Your task to perform on an android device: create a new album in the google photos Image 0: 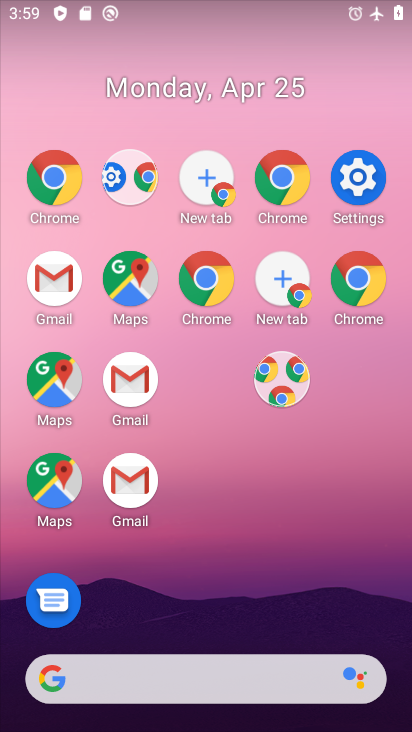
Step 0: click (197, 182)
Your task to perform on an android device: create a new album in the google photos Image 1: 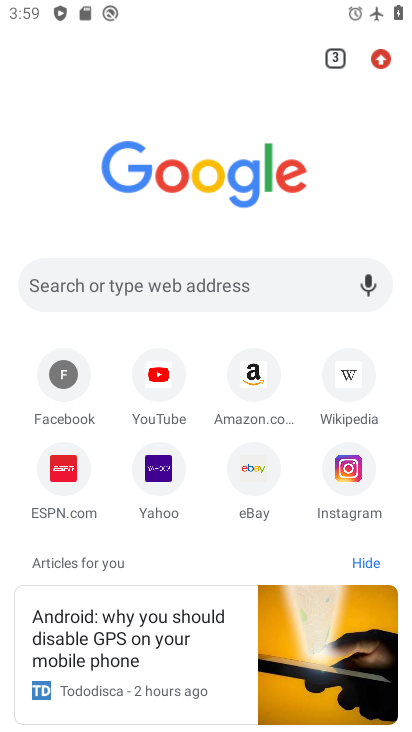
Step 1: press home button
Your task to perform on an android device: create a new album in the google photos Image 2: 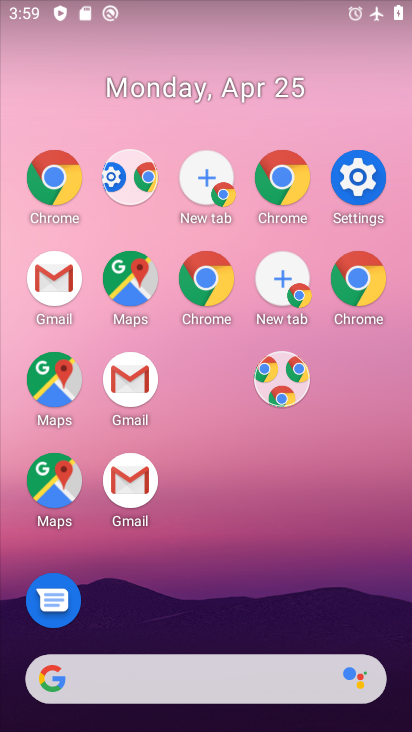
Step 2: drag from (248, 556) to (216, 171)
Your task to perform on an android device: create a new album in the google photos Image 3: 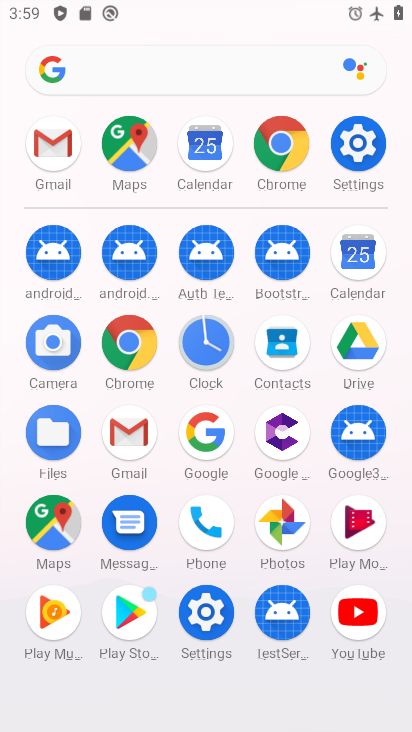
Step 3: click (275, 529)
Your task to perform on an android device: create a new album in the google photos Image 4: 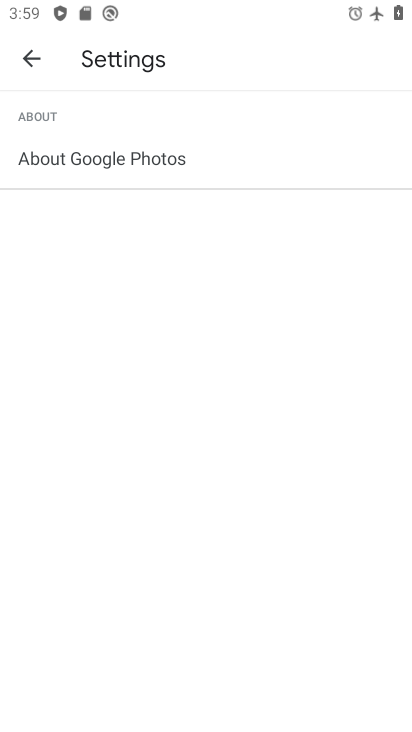
Step 4: click (27, 51)
Your task to perform on an android device: create a new album in the google photos Image 5: 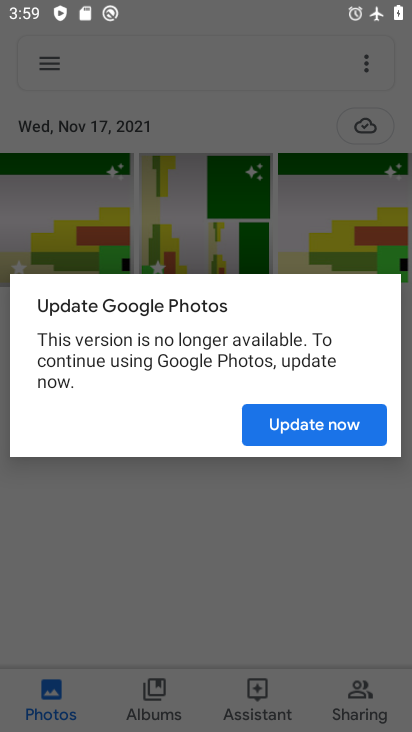
Step 5: press home button
Your task to perform on an android device: create a new album in the google photos Image 6: 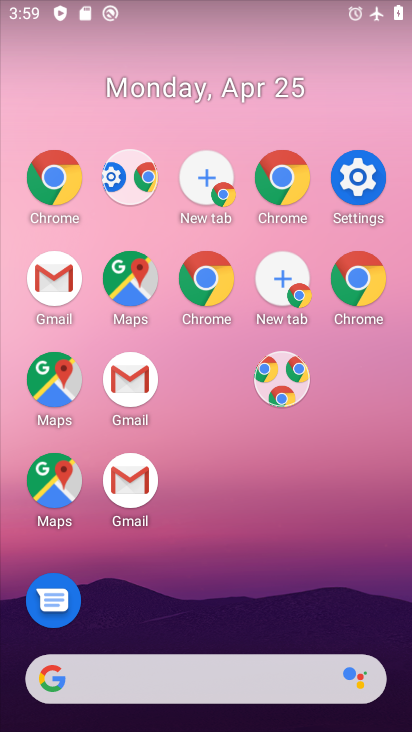
Step 6: drag from (285, 674) to (214, 119)
Your task to perform on an android device: create a new album in the google photos Image 7: 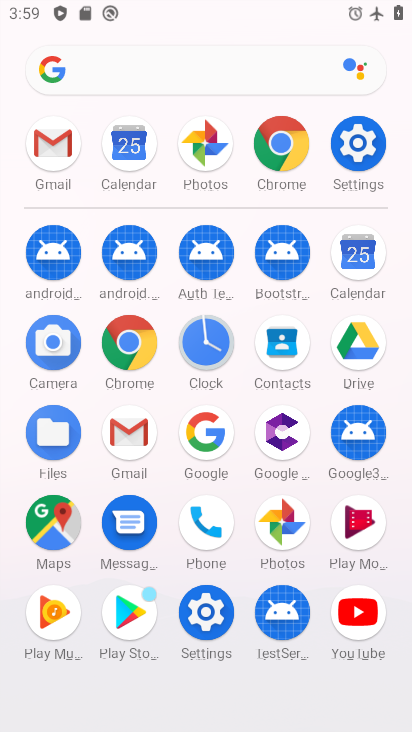
Step 7: click (283, 523)
Your task to perform on an android device: create a new album in the google photos Image 8: 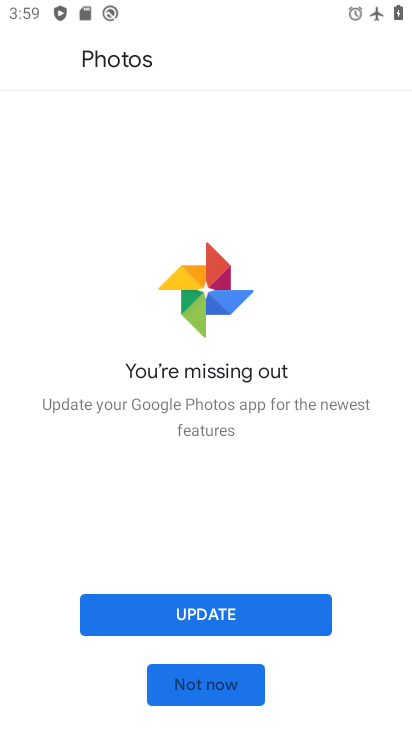
Step 8: click (202, 675)
Your task to perform on an android device: create a new album in the google photos Image 9: 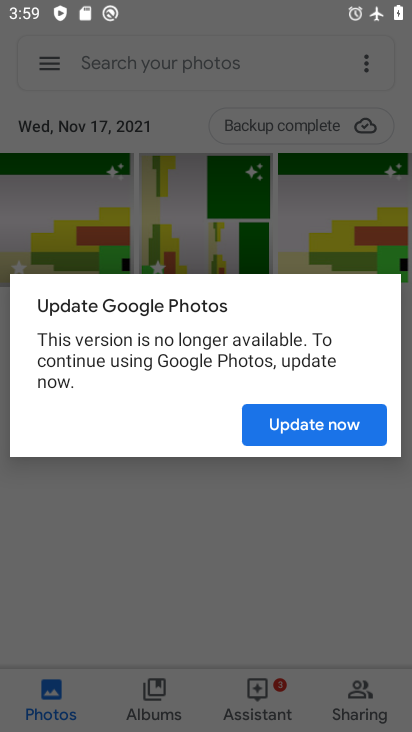
Step 9: click (319, 419)
Your task to perform on an android device: create a new album in the google photos Image 10: 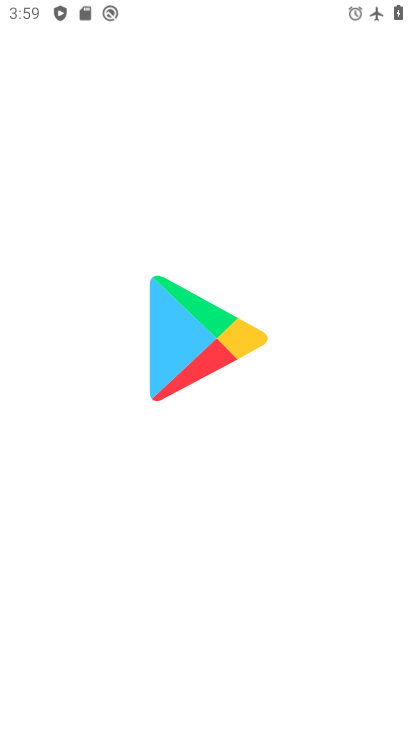
Step 10: click (144, 690)
Your task to perform on an android device: create a new album in the google photos Image 11: 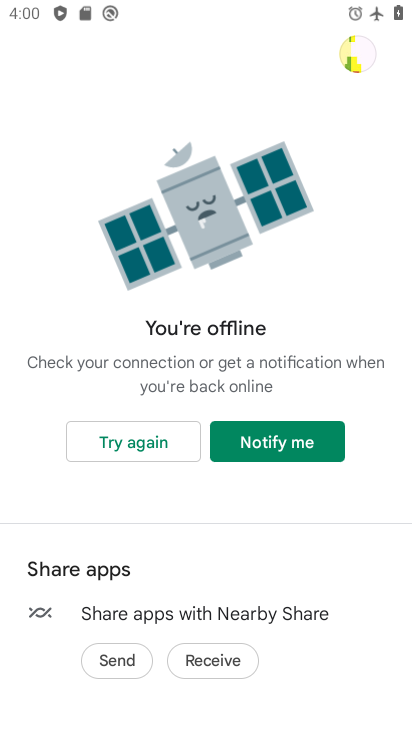
Step 11: press home button
Your task to perform on an android device: create a new album in the google photos Image 12: 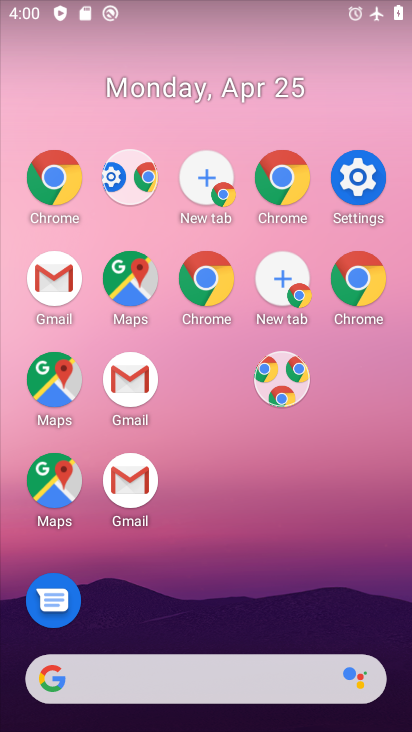
Step 12: drag from (305, 579) to (306, 4)
Your task to perform on an android device: create a new album in the google photos Image 13: 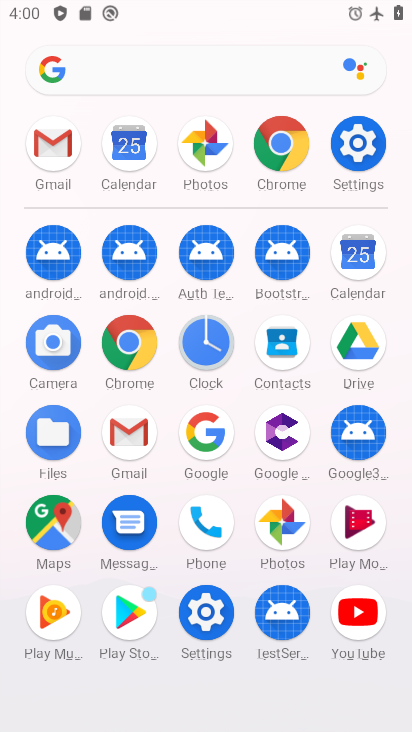
Step 13: click (278, 523)
Your task to perform on an android device: create a new album in the google photos Image 14: 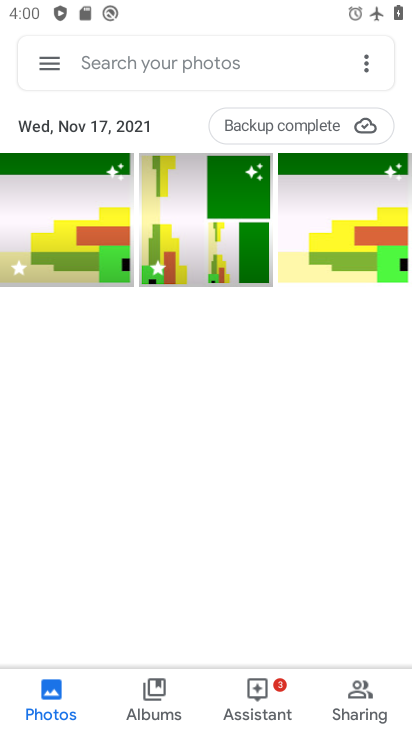
Step 14: click (153, 695)
Your task to perform on an android device: create a new album in the google photos Image 15: 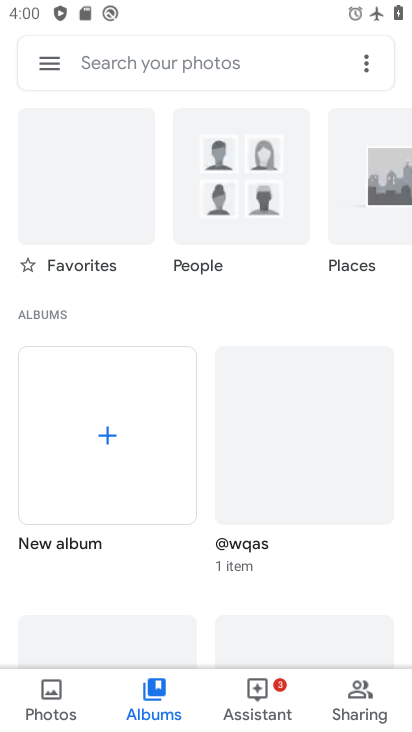
Step 15: click (102, 435)
Your task to perform on an android device: create a new album in the google photos Image 16: 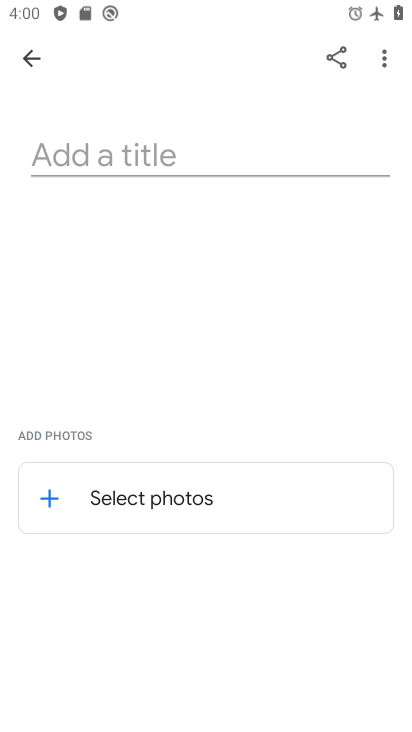
Step 16: click (57, 155)
Your task to perform on an android device: create a new album in the google photos Image 17: 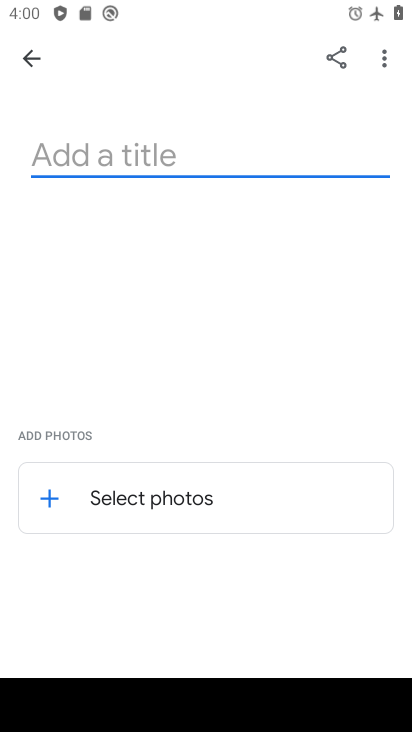
Step 17: type "majulika"
Your task to perform on an android device: create a new album in the google photos Image 18: 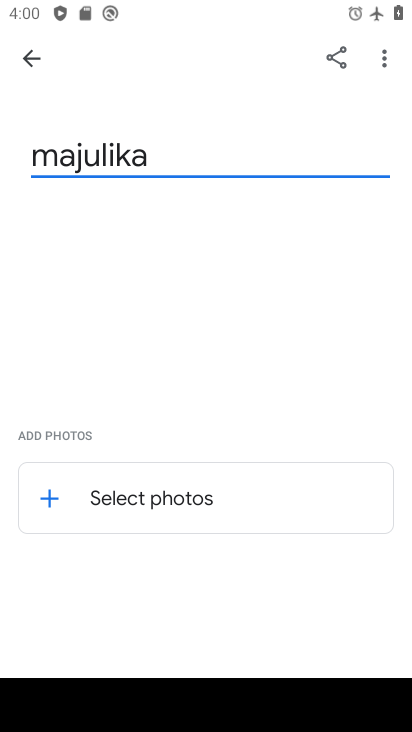
Step 18: click (157, 497)
Your task to perform on an android device: create a new album in the google photos Image 19: 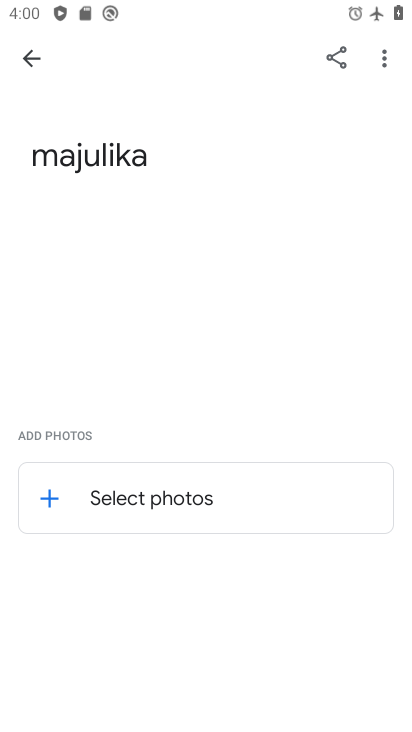
Step 19: click (120, 496)
Your task to perform on an android device: create a new album in the google photos Image 20: 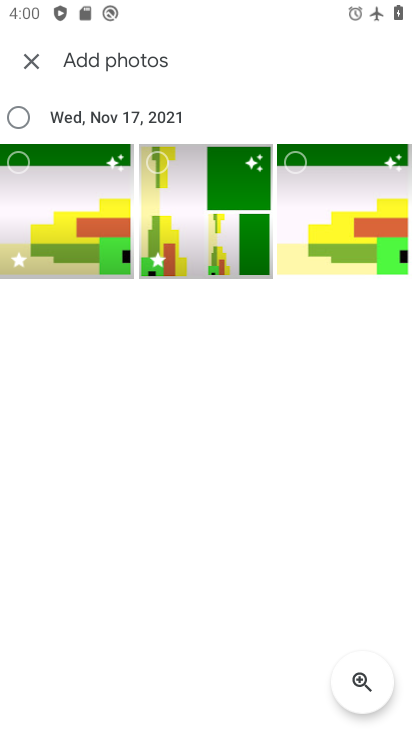
Step 20: click (24, 160)
Your task to perform on an android device: create a new album in the google photos Image 21: 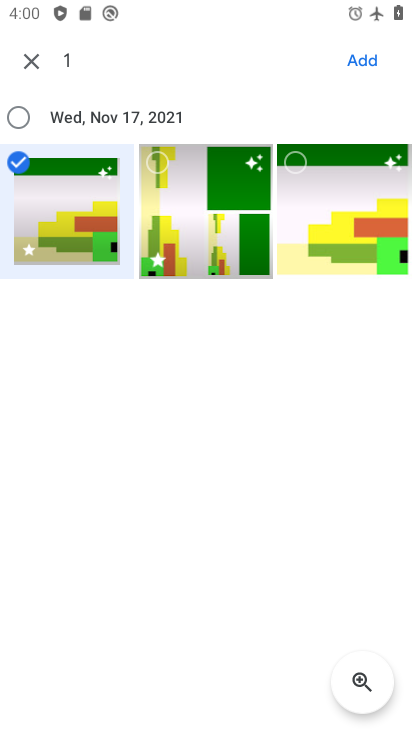
Step 21: click (152, 162)
Your task to perform on an android device: create a new album in the google photos Image 22: 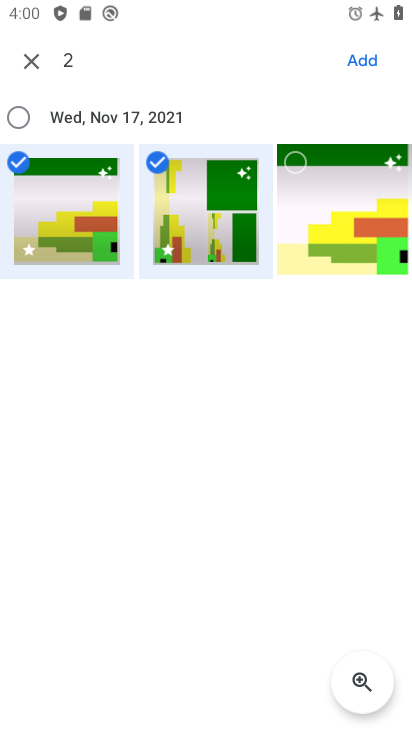
Step 22: click (357, 49)
Your task to perform on an android device: create a new album in the google photos Image 23: 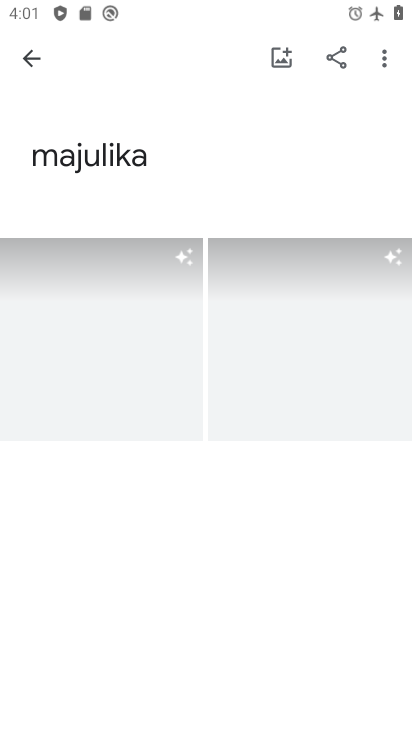
Step 23: task complete